Your task to perform on an android device: turn off translation in the chrome app Image 0: 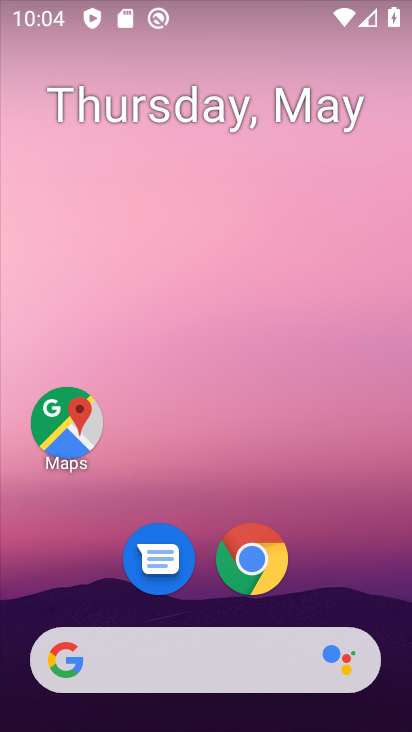
Step 0: drag from (369, 404) to (411, 13)
Your task to perform on an android device: turn off translation in the chrome app Image 1: 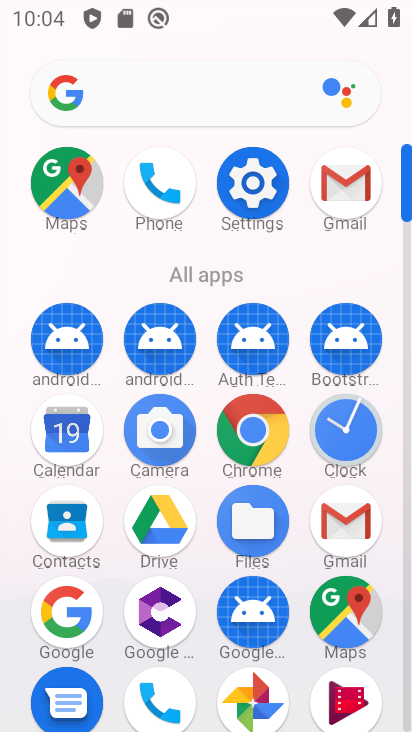
Step 1: click (269, 428)
Your task to perform on an android device: turn off translation in the chrome app Image 2: 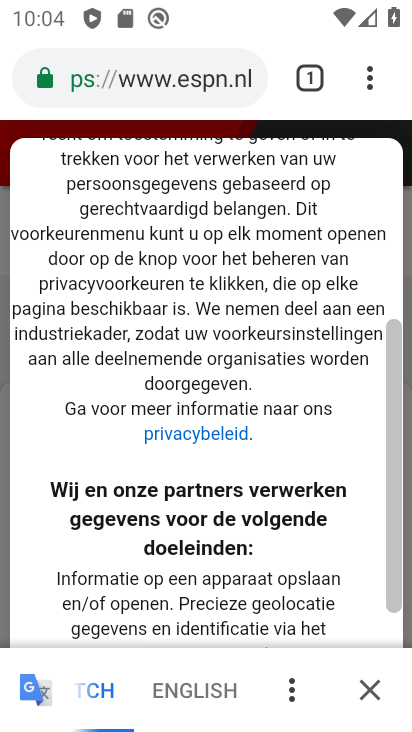
Step 2: drag from (368, 82) to (130, 633)
Your task to perform on an android device: turn off translation in the chrome app Image 3: 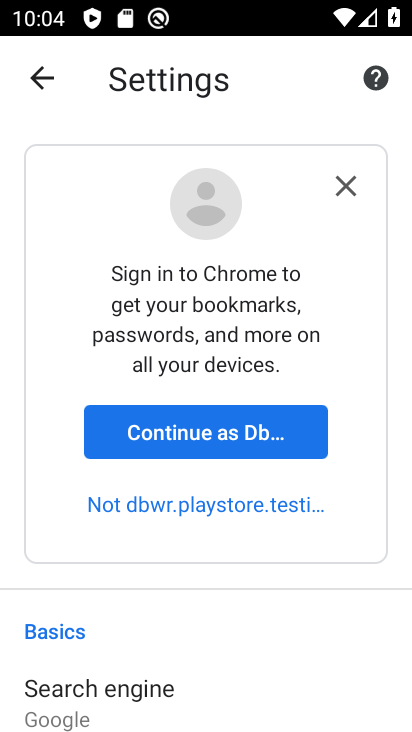
Step 3: drag from (139, 631) to (242, 245)
Your task to perform on an android device: turn off translation in the chrome app Image 4: 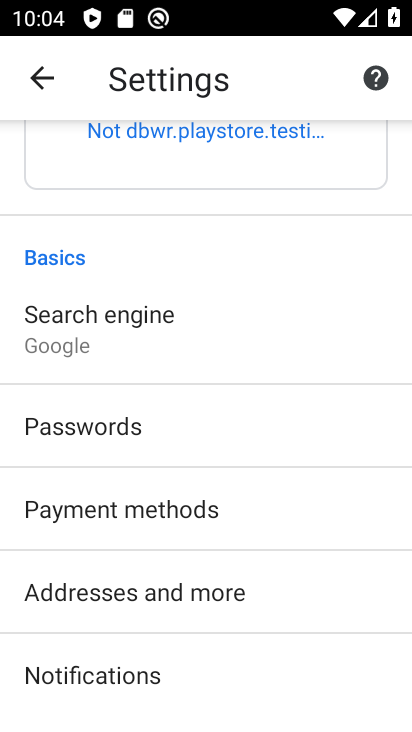
Step 4: drag from (170, 589) to (157, 260)
Your task to perform on an android device: turn off translation in the chrome app Image 5: 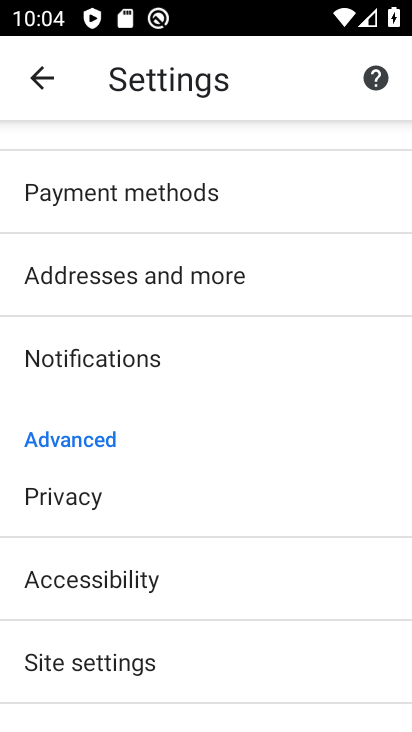
Step 5: drag from (135, 671) to (150, 393)
Your task to perform on an android device: turn off translation in the chrome app Image 6: 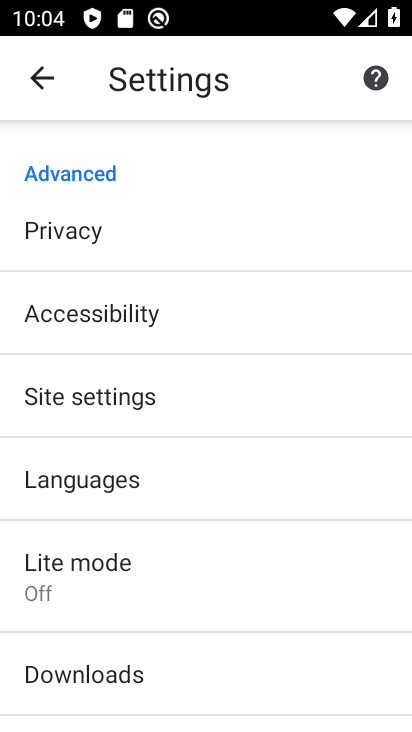
Step 6: click (108, 484)
Your task to perform on an android device: turn off translation in the chrome app Image 7: 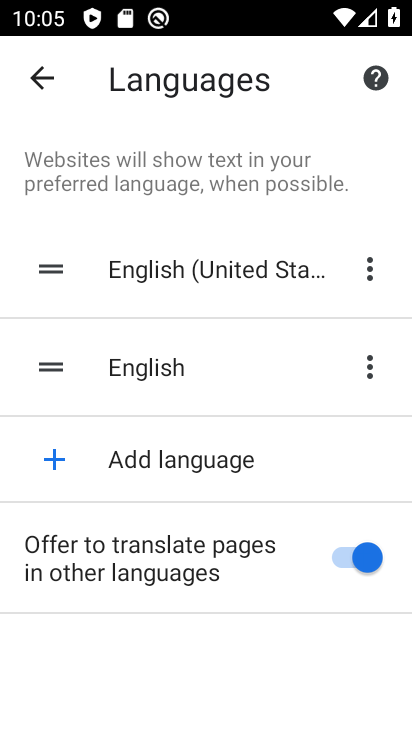
Step 7: click (355, 565)
Your task to perform on an android device: turn off translation in the chrome app Image 8: 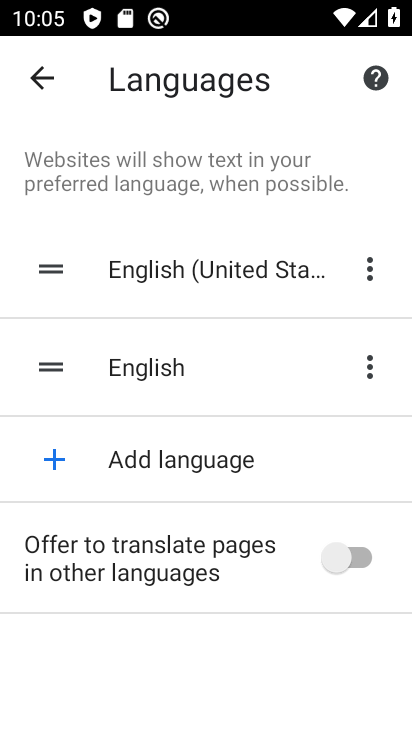
Step 8: task complete